Your task to perform on an android device: Open eBay Image 0: 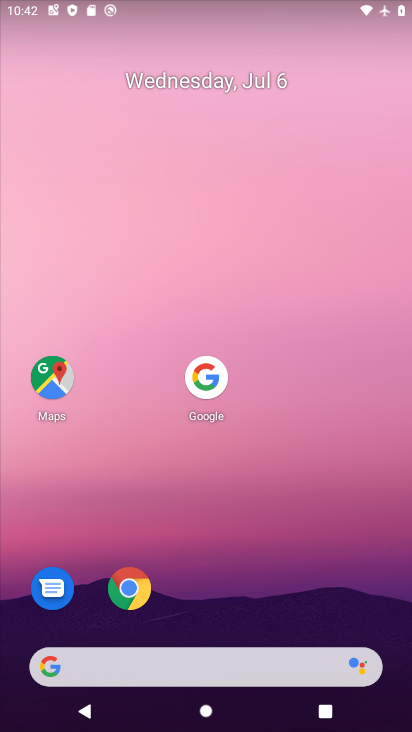
Step 0: click (130, 591)
Your task to perform on an android device: Open eBay Image 1: 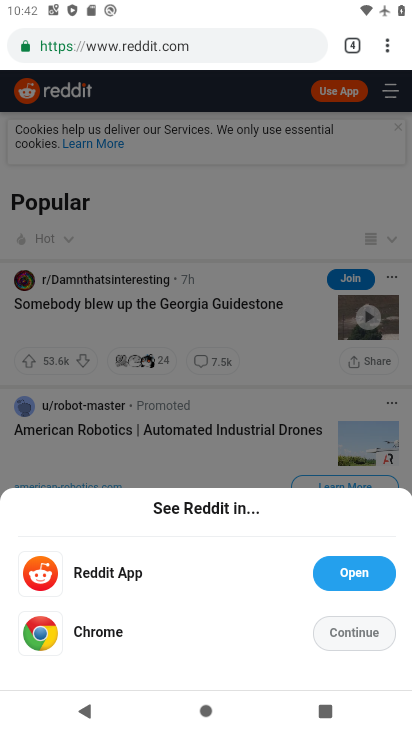
Step 1: click (383, 59)
Your task to perform on an android device: Open eBay Image 2: 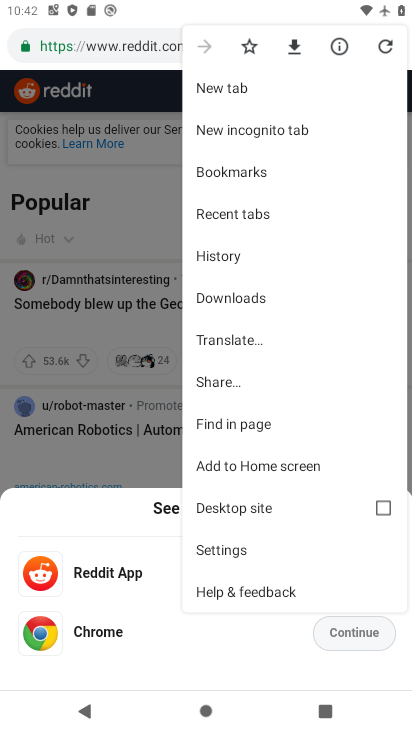
Step 2: click (249, 88)
Your task to perform on an android device: Open eBay Image 3: 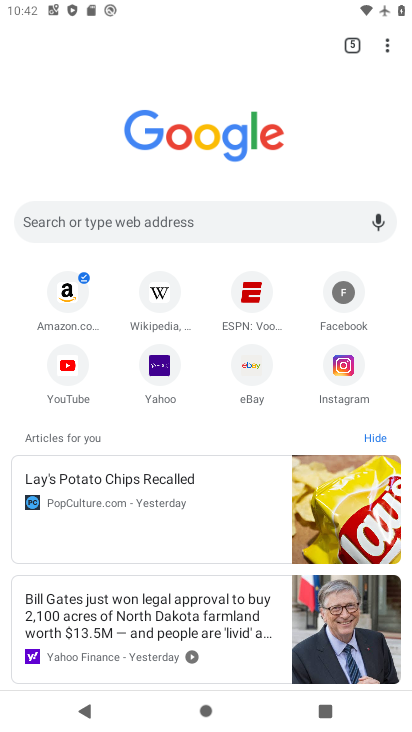
Step 3: click (250, 376)
Your task to perform on an android device: Open eBay Image 4: 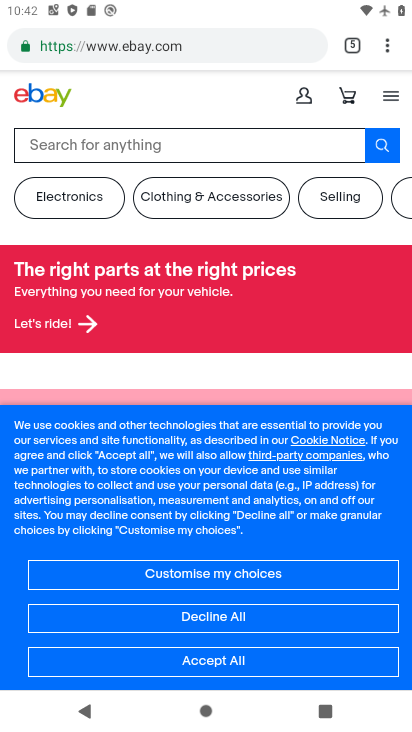
Step 4: task complete